Your task to perform on an android device: turn off sleep mode Image 0: 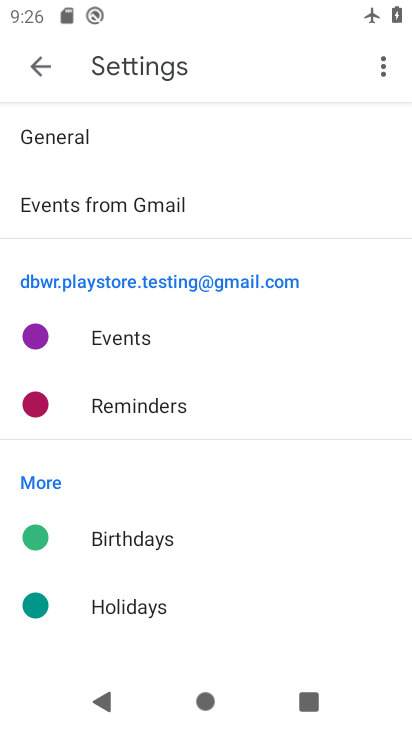
Step 0: press home button
Your task to perform on an android device: turn off sleep mode Image 1: 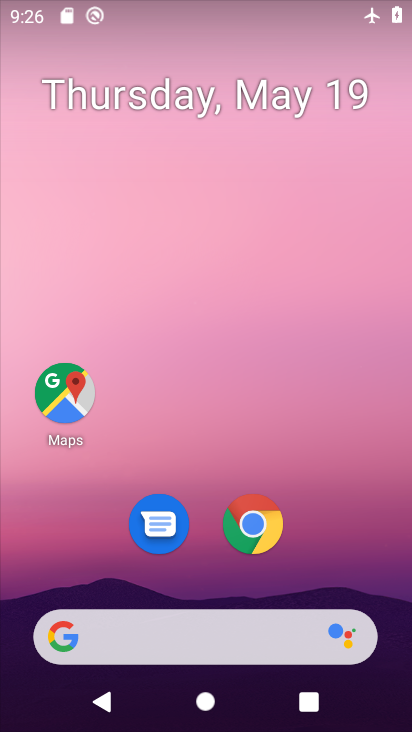
Step 1: drag from (333, 301) to (327, 72)
Your task to perform on an android device: turn off sleep mode Image 2: 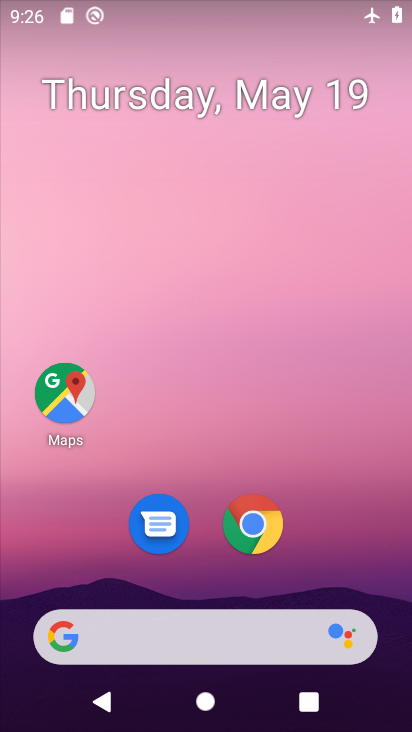
Step 2: drag from (190, 474) to (244, 20)
Your task to perform on an android device: turn off sleep mode Image 3: 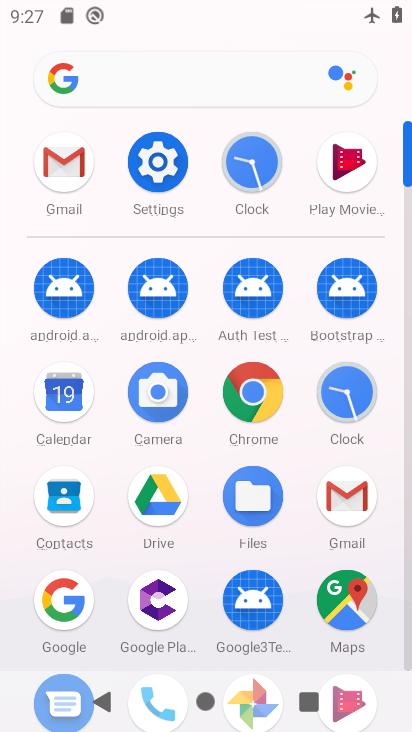
Step 3: click (164, 165)
Your task to perform on an android device: turn off sleep mode Image 4: 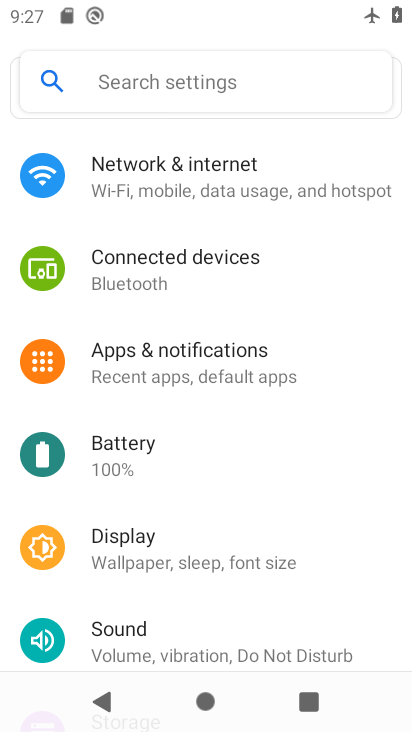
Step 4: click (146, 553)
Your task to perform on an android device: turn off sleep mode Image 5: 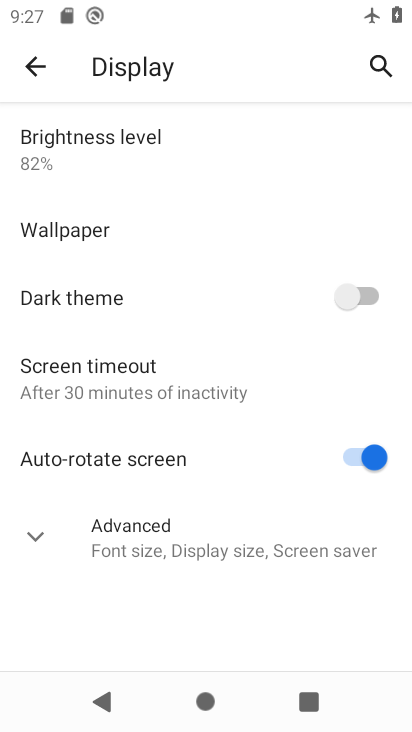
Step 5: click (30, 534)
Your task to perform on an android device: turn off sleep mode Image 6: 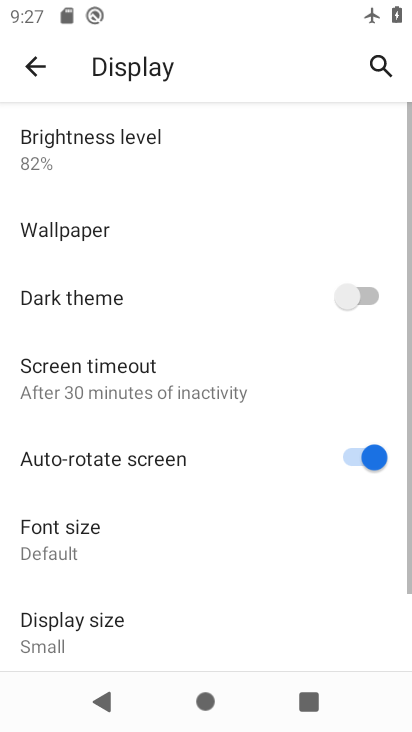
Step 6: task complete